Your task to perform on an android device: uninstall "Adobe Express: Graphic Design" Image 0: 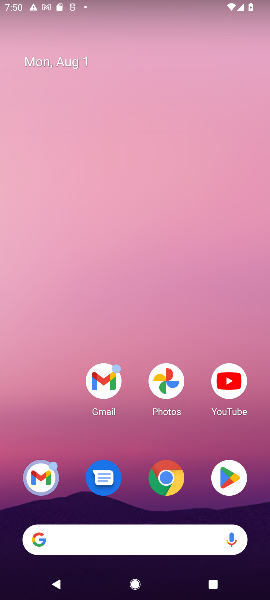
Step 0: click (224, 488)
Your task to perform on an android device: uninstall "Adobe Express: Graphic Design" Image 1: 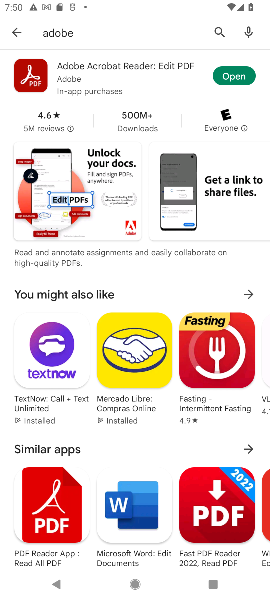
Step 1: click (212, 31)
Your task to perform on an android device: uninstall "Adobe Express: Graphic Design" Image 2: 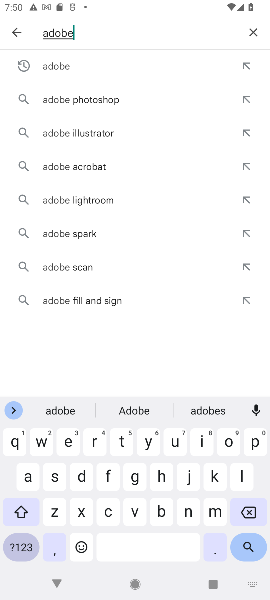
Step 2: click (253, 27)
Your task to perform on an android device: uninstall "Adobe Express: Graphic Design" Image 3: 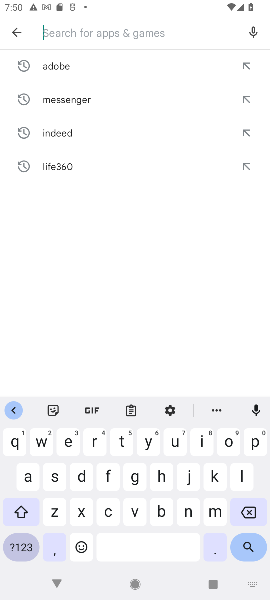
Step 3: click (25, 475)
Your task to perform on an android device: uninstall "Adobe Express: Graphic Design" Image 4: 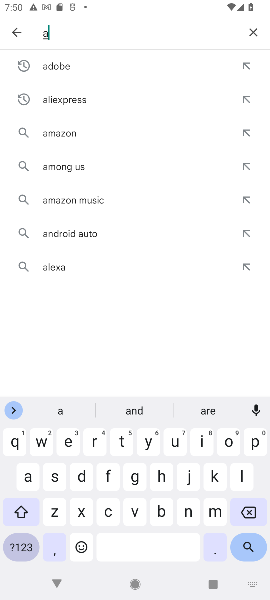
Step 4: click (77, 475)
Your task to perform on an android device: uninstall "Adobe Express: Graphic Design" Image 5: 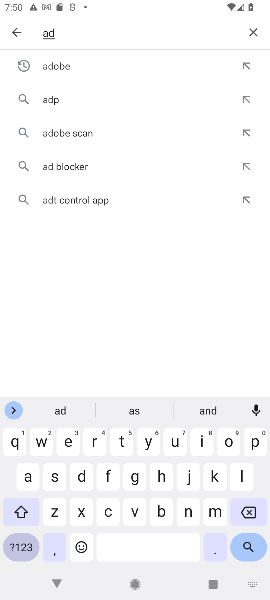
Step 5: click (74, 66)
Your task to perform on an android device: uninstall "Adobe Express: Graphic Design" Image 6: 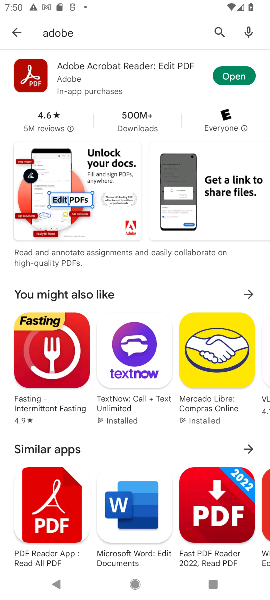
Step 6: click (103, 24)
Your task to perform on an android device: uninstall "Adobe Express: Graphic Design" Image 7: 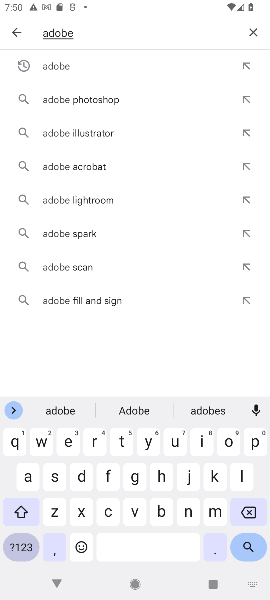
Step 7: click (139, 547)
Your task to perform on an android device: uninstall "Adobe Express: Graphic Design" Image 8: 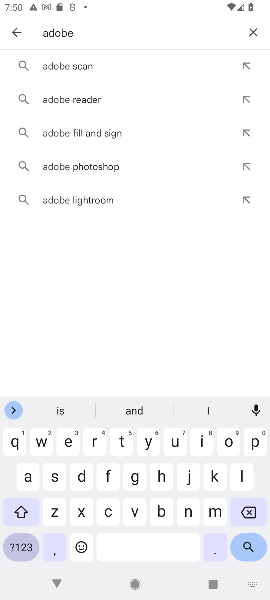
Step 8: click (70, 442)
Your task to perform on an android device: uninstall "Adobe Express: Graphic Design" Image 9: 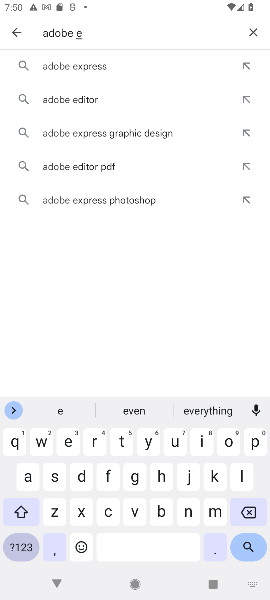
Step 9: click (80, 58)
Your task to perform on an android device: uninstall "Adobe Express: Graphic Design" Image 10: 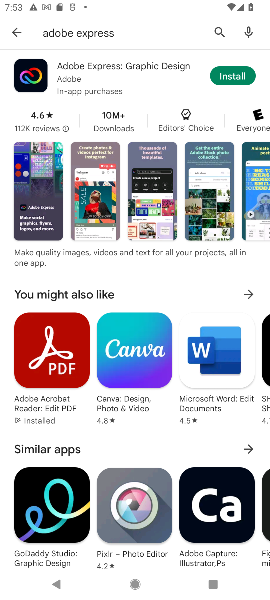
Step 10: task complete